Your task to perform on an android device: turn on wifi Image 0: 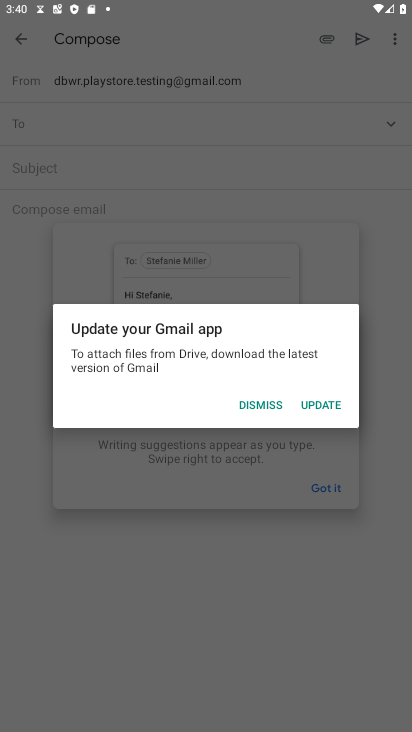
Step 0: press back button
Your task to perform on an android device: turn on wifi Image 1: 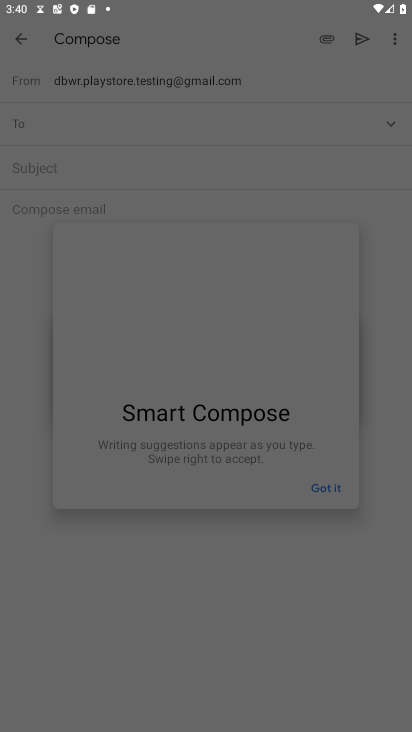
Step 1: press home button
Your task to perform on an android device: turn on wifi Image 2: 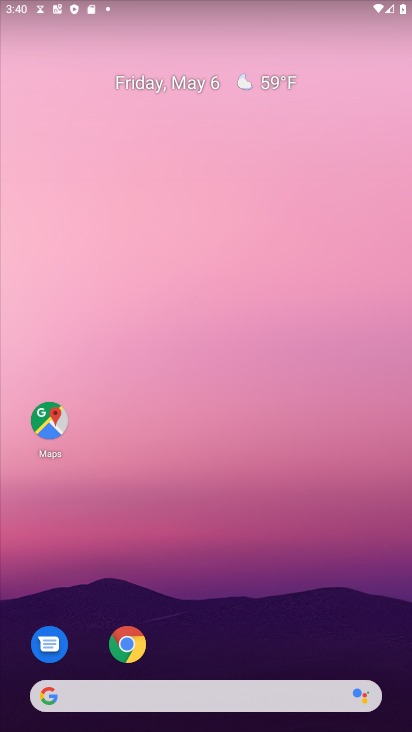
Step 2: drag from (205, 544) to (137, 77)
Your task to perform on an android device: turn on wifi Image 3: 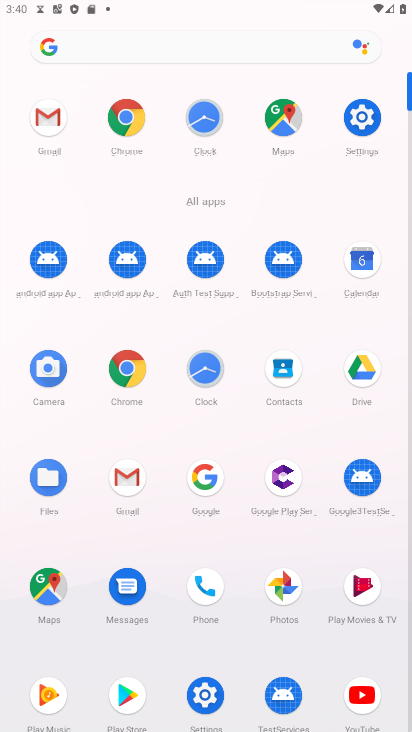
Step 3: click (361, 114)
Your task to perform on an android device: turn on wifi Image 4: 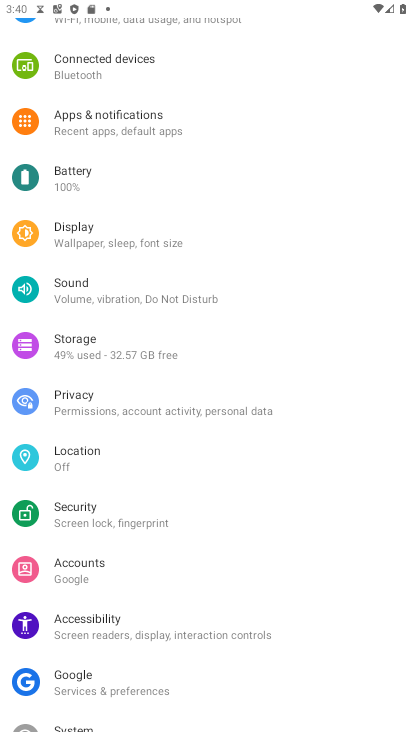
Step 4: drag from (186, 177) to (201, 288)
Your task to perform on an android device: turn on wifi Image 5: 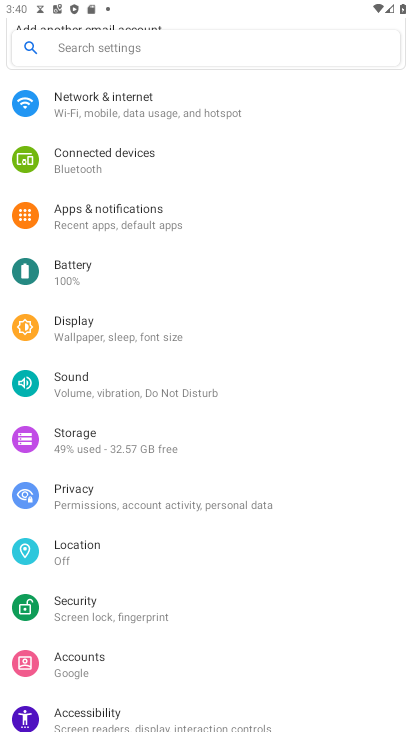
Step 5: drag from (177, 181) to (192, 294)
Your task to perform on an android device: turn on wifi Image 6: 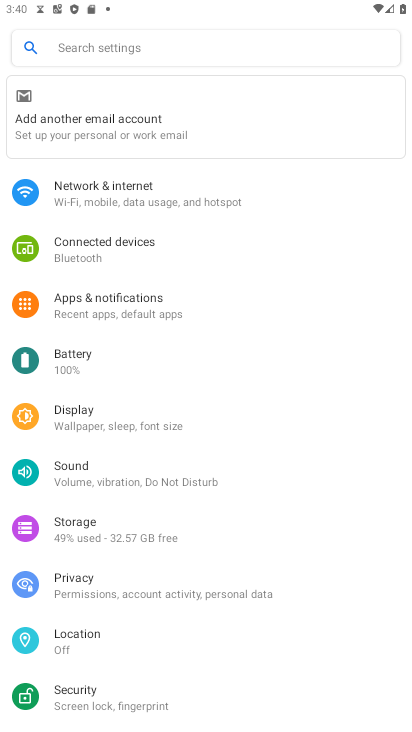
Step 6: click (145, 197)
Your task to perform on an android device: turn on wifi Image 7: 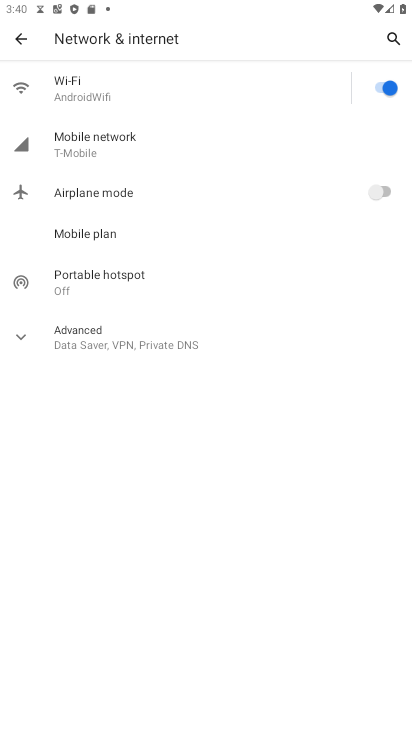
Step 7: task complete